Your task to perform on an android device: check android version Image 0: 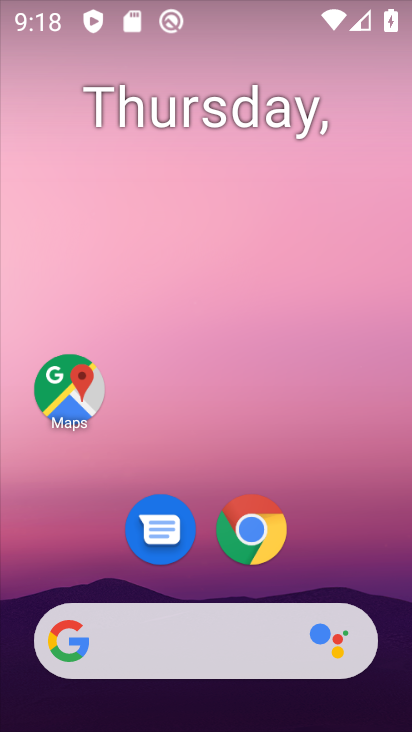
Step 0: drag from (325, 564) to (299, 220)
Your task to perform on an android device: check android version Image 1: 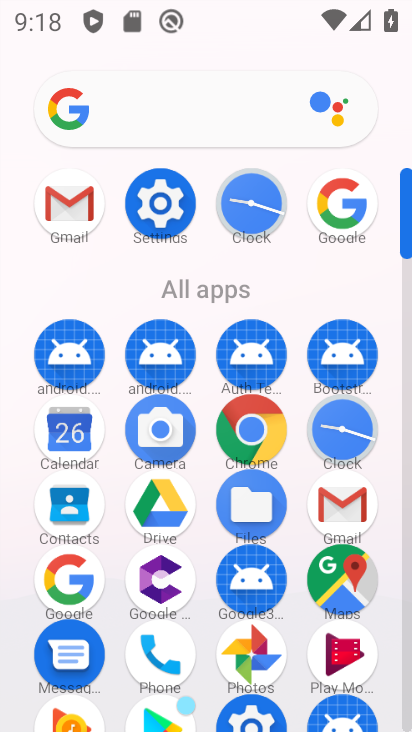
Step 1: click (161, 202)
Your task to perform on an android device: check android version Image 2: 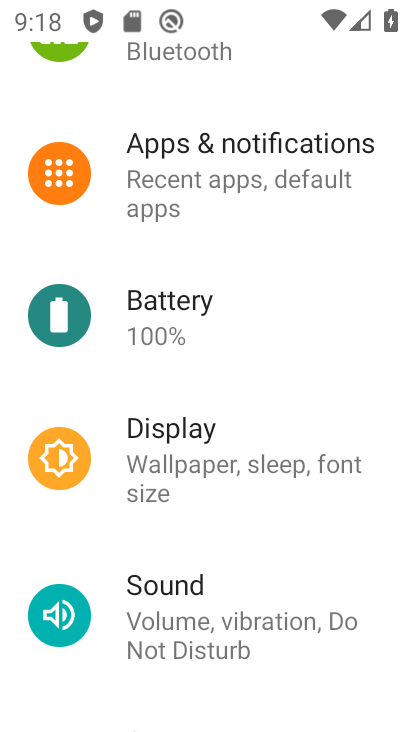
Step 2: drag from (186, 382) to (232, 308)
Your task to perform on an android device: check android version Image 3: 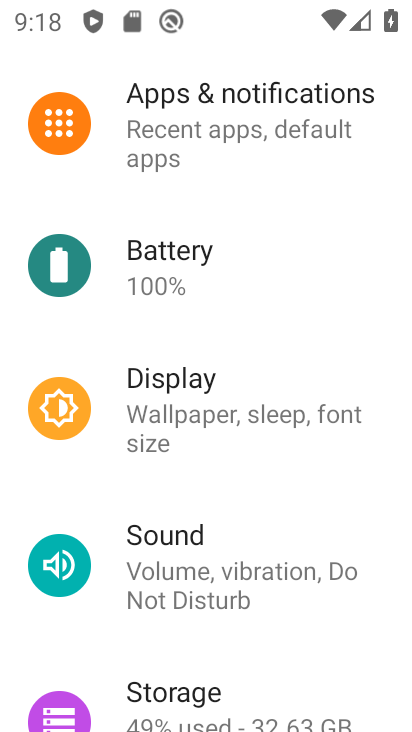
Step 3: drag from (171, 472) to (236, 376)
Your task to perform on an android device: check android version Image 4: 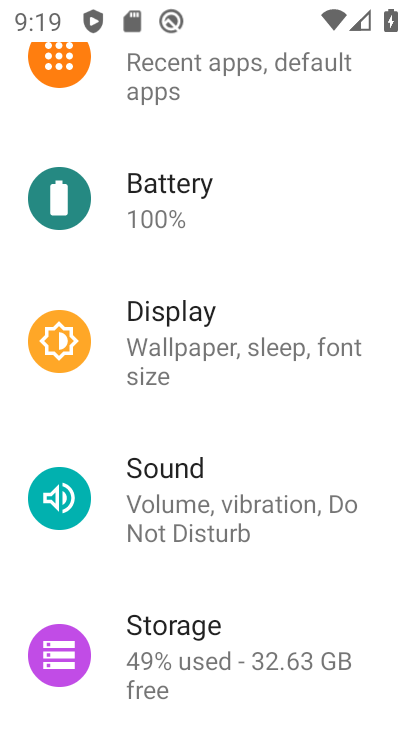
Step 4: drag from (141, 568) to (222, 467)
Your task to perform on an android device: check android version Image 5: 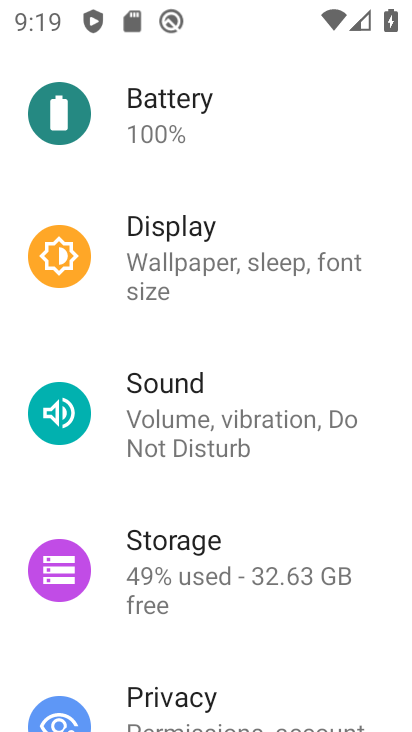
Step 5: drag from (153, 630) to (250, 515)
Your task to perform on an android device: check android version Image 6: 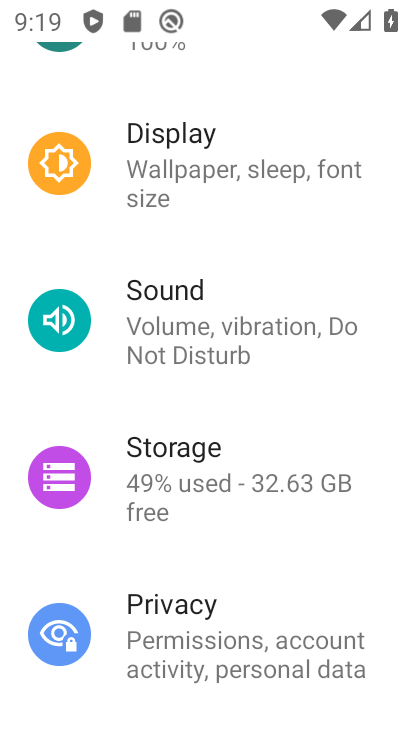
Step 6: drag from (153, 569) to (251, 439)
Your task to perform on an android device: check android version Image 7: 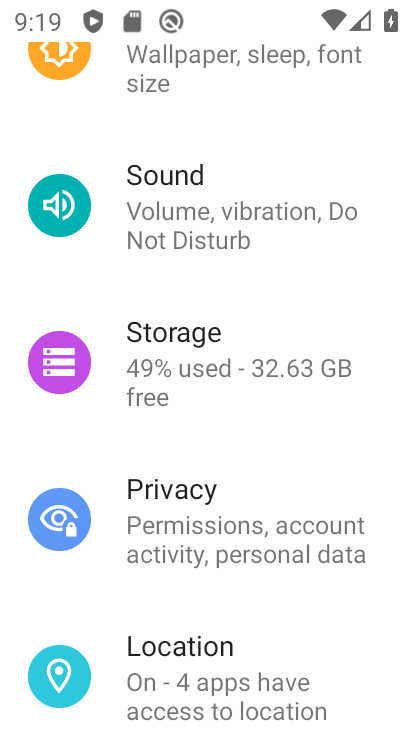
Step 7: drag from (137, 590) to (233, 477)
Your task to perform on an android device: check android version Image 8: 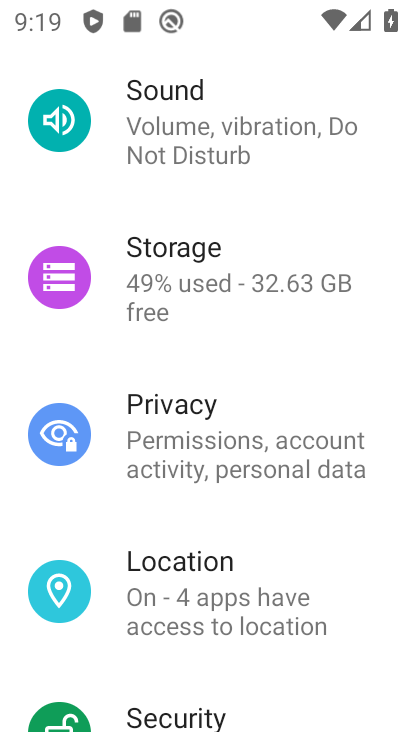
Step 8: drag from (145, 516) to (215, 412)
Your task to perform on an android device: check android version Image 9: 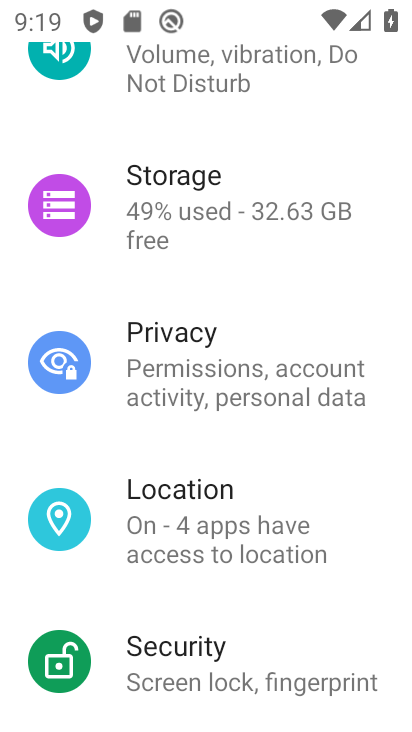
Step 9: drag from (113, 608) to (244, 462)
Your task to perform on an android device: check android version Image 10: 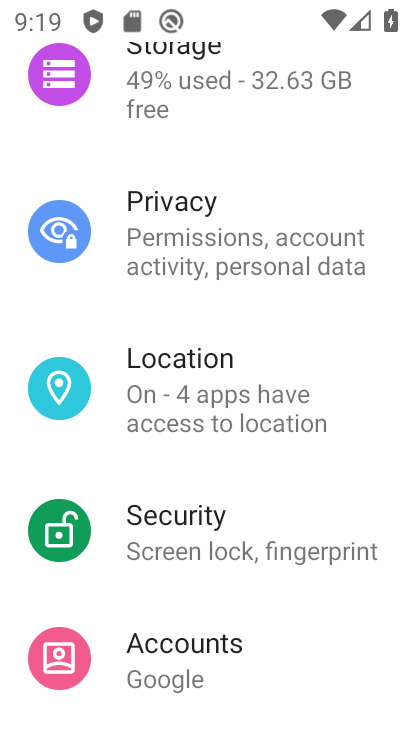
Step 10: drag from (119, 584) to (208, 473)
Your task to perform on an android device: check android version Image 11: 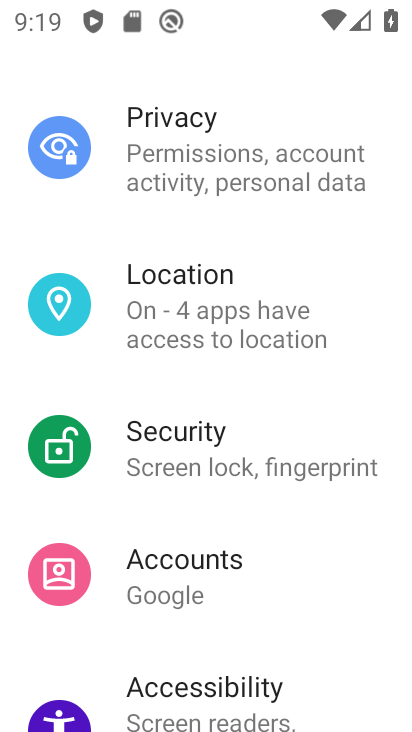
Step 11: drag from (100, 526) to (161, 387)
Your task to perform on an android device: check android version Image 12: 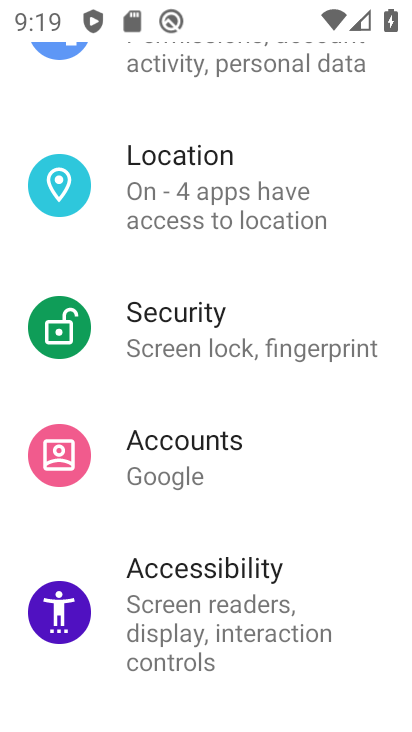
Step 12: drag from (107, 531) to (133, 374)
Your task to perform on an android device: check android version Image 13: 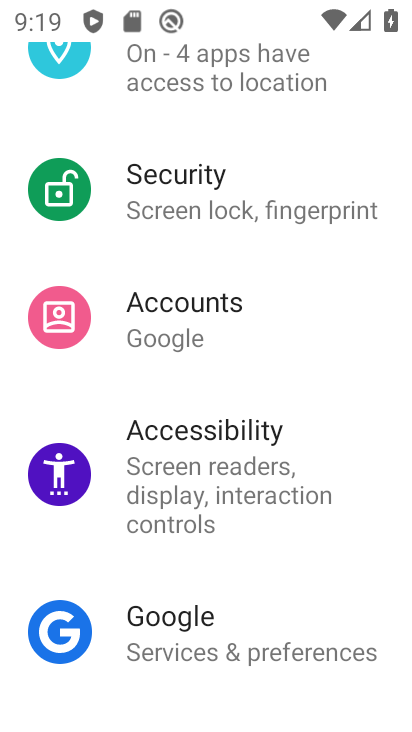
Step 13: drag from (102, 559) to (104, 337)
Your task to perform on an android device: check android version Image 14: 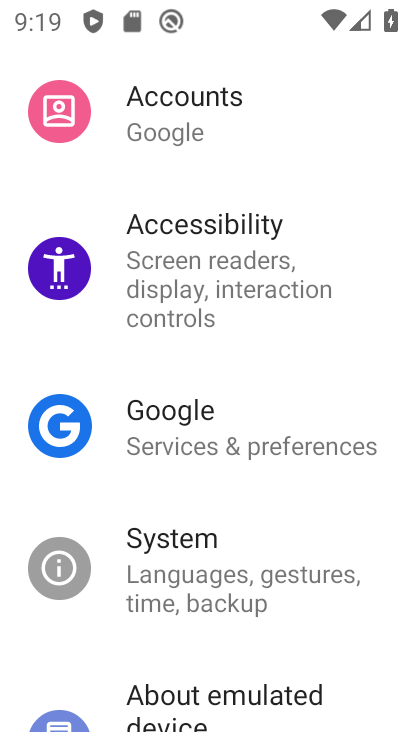
Step 14: drag from (102, 498) to (128, 338)
Your task to perform on an android device: check android version Image 15: 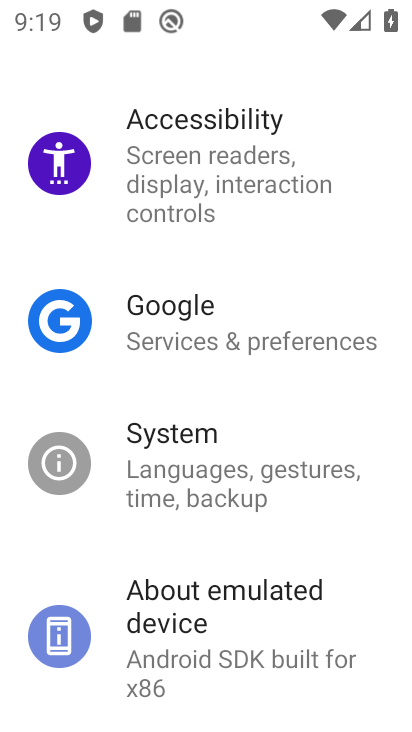
Step 15: drag from (100, 545) to (118, 418)
Your task to perform on an android device: check android version Image 16: 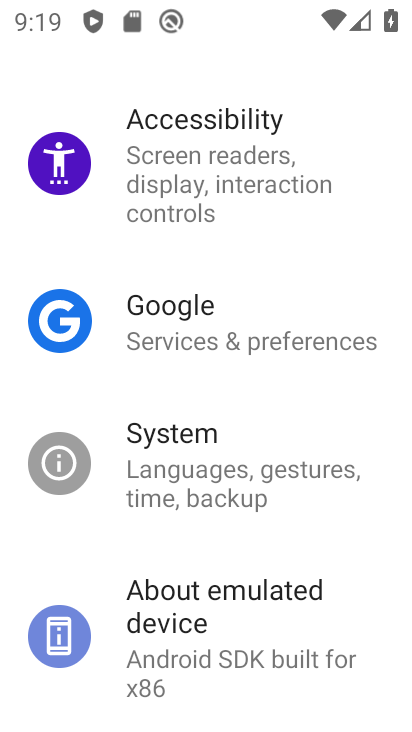
Step 16: click (248, 593)
Your task to perform on an android device: check android version Image 17: 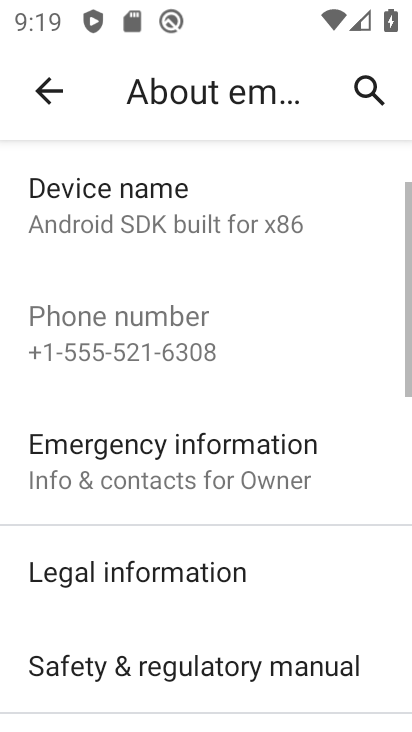
Step 17: drag from (146, 540) to (219, 424)
Your task to perform on an android device: check android version Image 18: 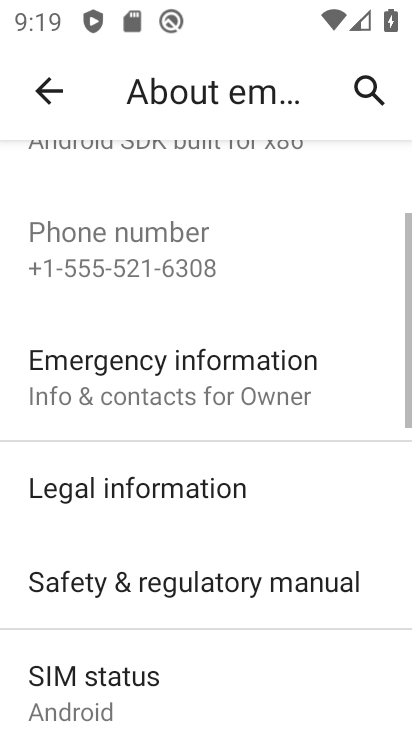
Step 18: drag from (164, 548) to (264, 442)
Your task to perform on an android device: check android version Image 19: 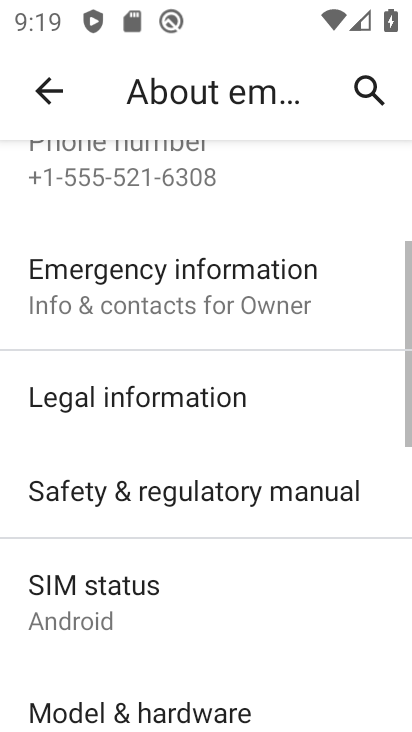
Step 19: drag from (155, 617) to (265, 455)
Your task to perform on an android device: check android version Image 20: 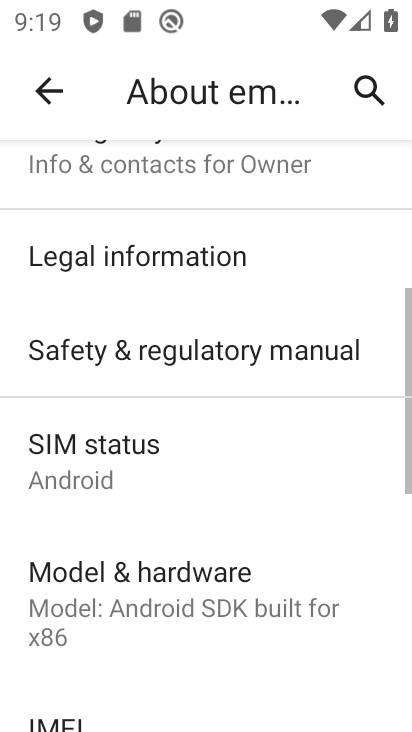
Step 20: drag from (107, 540) to (228, 413)
Your task to perform on an android device: check android version Image 21: 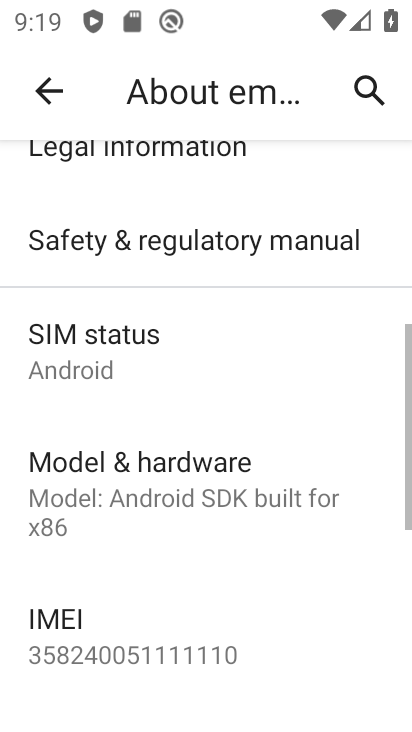
Step 21: drag from (121, 571) to (233, 429)
Your task to perform on an android device: check android version Image 22: 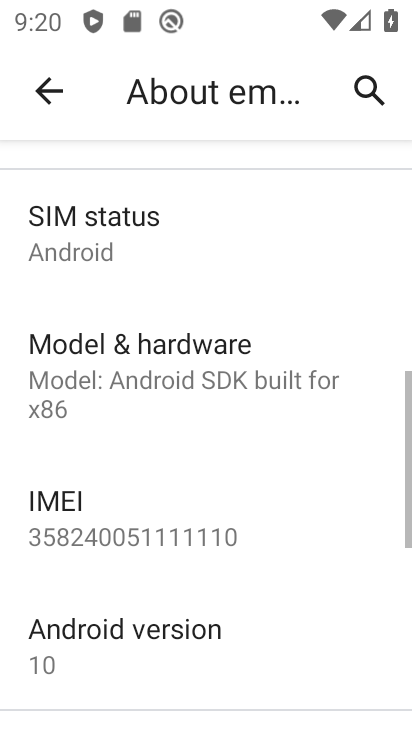
Step 22: drag from (127, 597) to (248, 459)
Your task to perform on an android device: check android version Image 23: 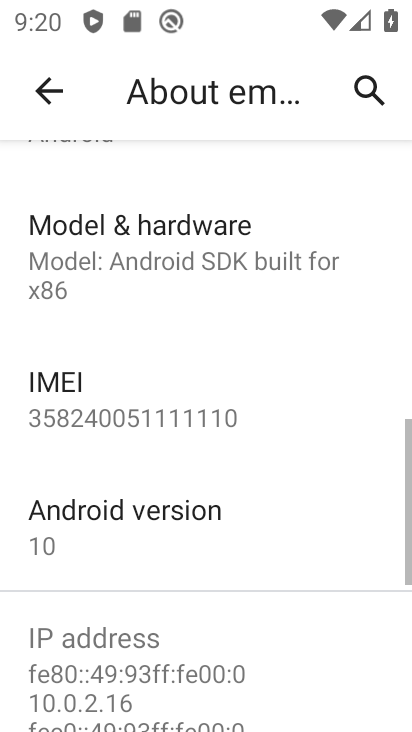
Step 23: click (197, 503)
Your task to perform on an android device: check android version Image 24: 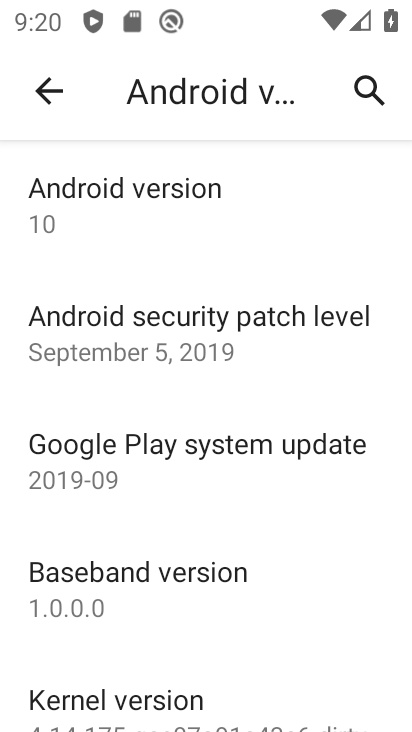
Step 24: task complete